Your task to perform on an android device: Open the calendar app, open the side menu, and click the "Day" option Image 0: 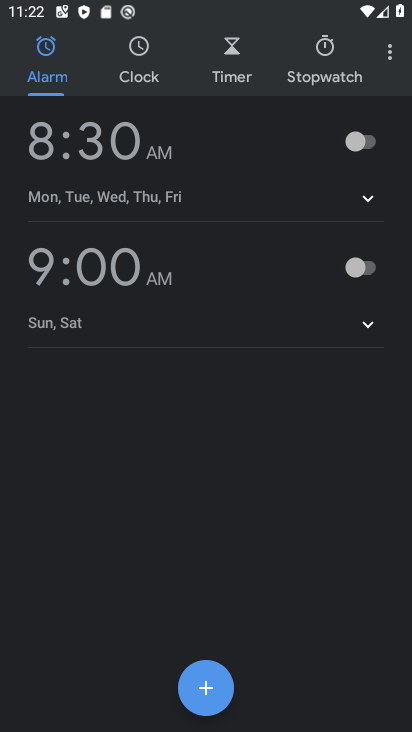
Step 0: press home button
Your task to perform on an android device: Open the calendar app, open the side menu, and click the "Day" option Image 1: 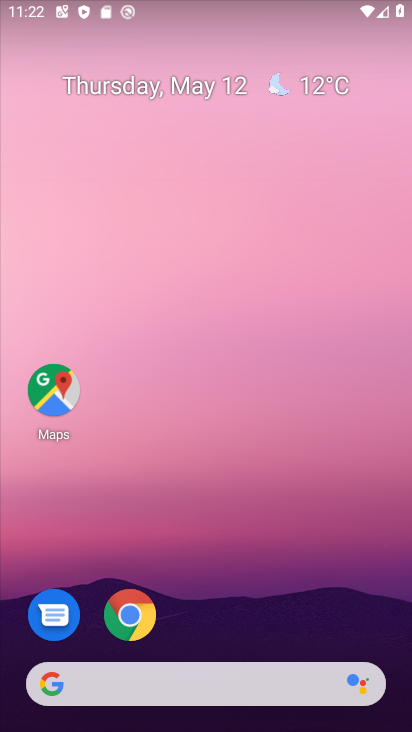
Step 1: drag from (211, 614) to (212, 139)
Your task to perform on an android device: Open the calendar app, open the side menu, and click the "Day" option Image 2: 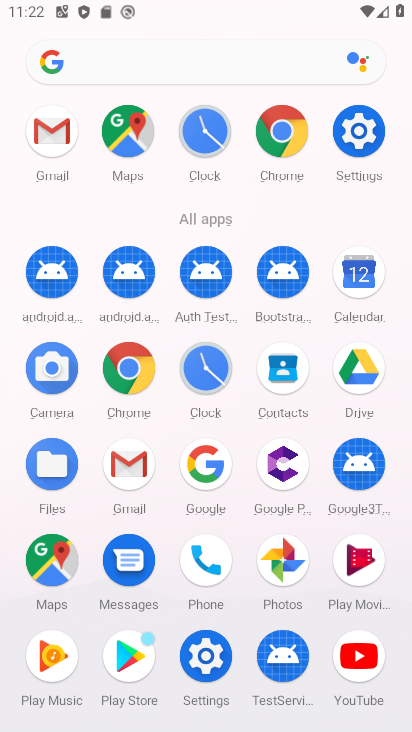
Step 2: click (362, 283)
Your task to perform on an android device: Open the calendar app, open the side menu, and click the "Day" option Image 3: 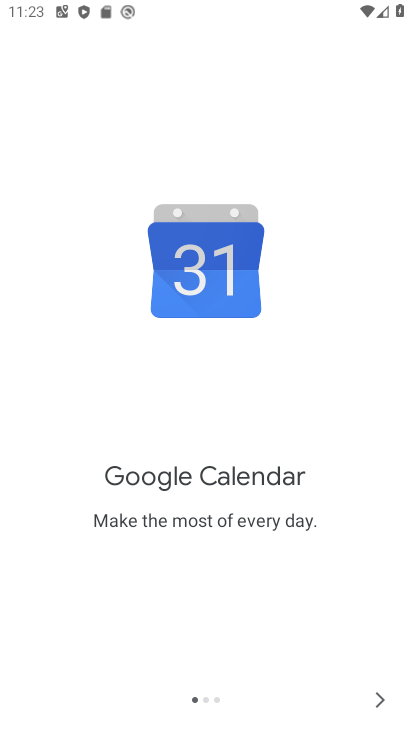
Step 3: click (381, 699)
Your task to perform on an android device: Open the calendar app, open the side menu, and click the "Day" option Image 4: 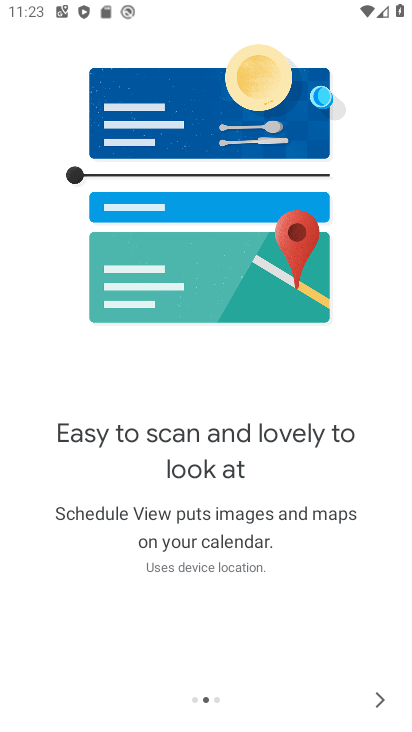
Step 4: click (380, 700)
Your task to perform on an android device: Open the calendar app, open the side menu, and click the "Day" option Image 5: 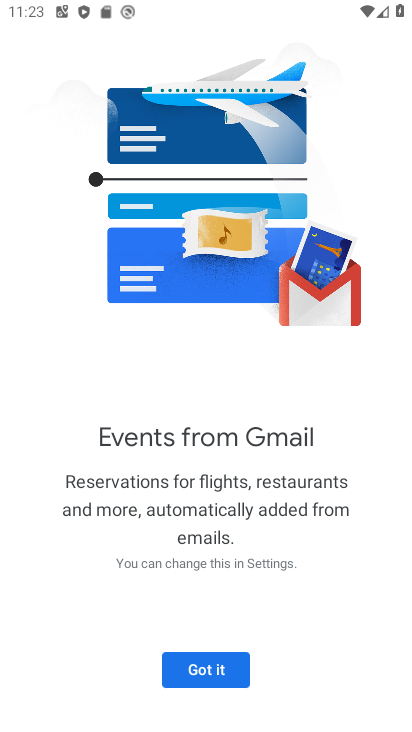
Step 5: click (219, 672)
Your task to perform on an android device: Open the calendar app, open the side menu, and click the "Day" option Image 6: 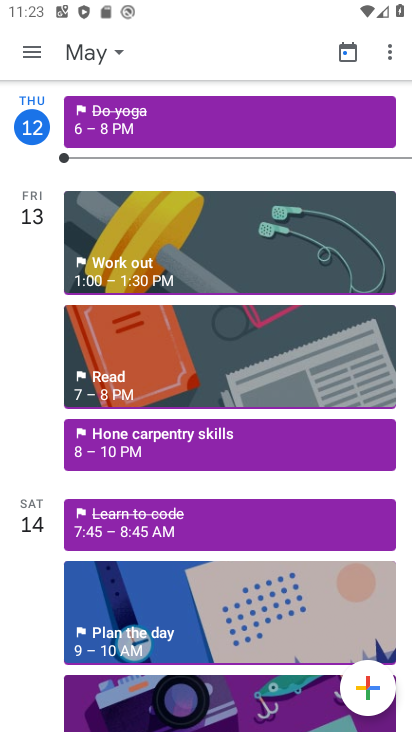
Step 6: click (25, 37)
Your task to perform on an android device: Open the calendar app, open the side menu, and click the "Day" option Image 7: 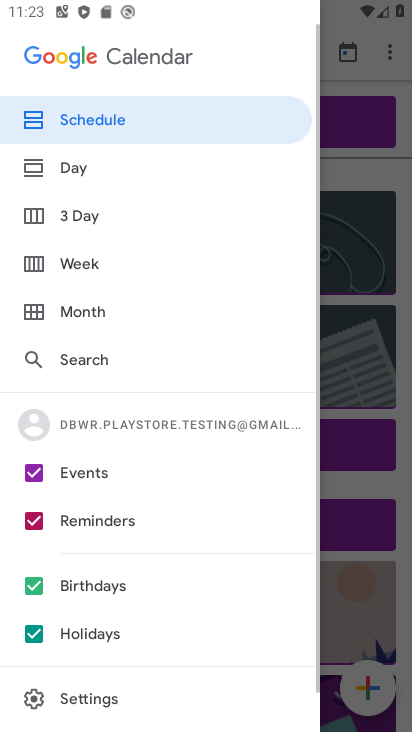
Step 7: click (110, 173)
Your task to perform on an android device: Open the calendar app, open the side menu, and click the "Day" option Image 8: 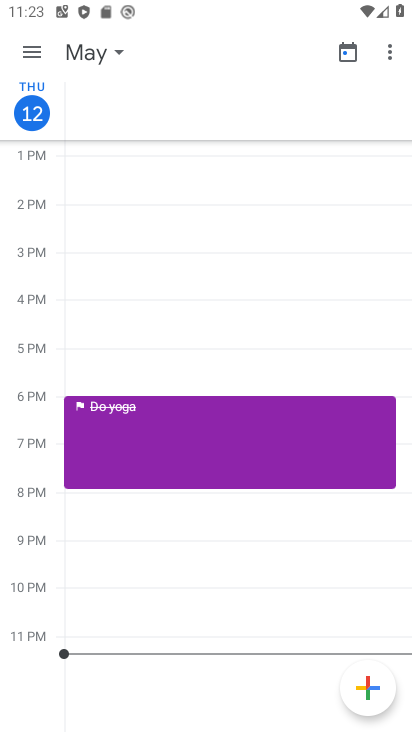
Step 8: click (28, 44)
Your task to perform on an android device: Open the calendar app, open the side menu, and click the "Day" option Image 9: 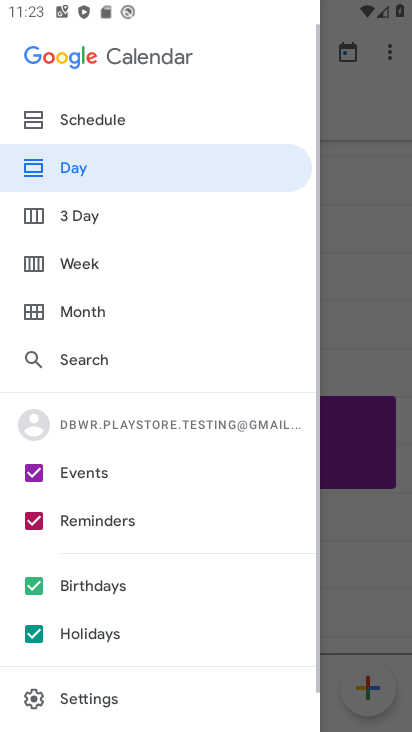
Step 9: click (129, 170)
Your task to perform on an android device: Open the calendar app, open the side menu, and click the "Day" option Image 10: 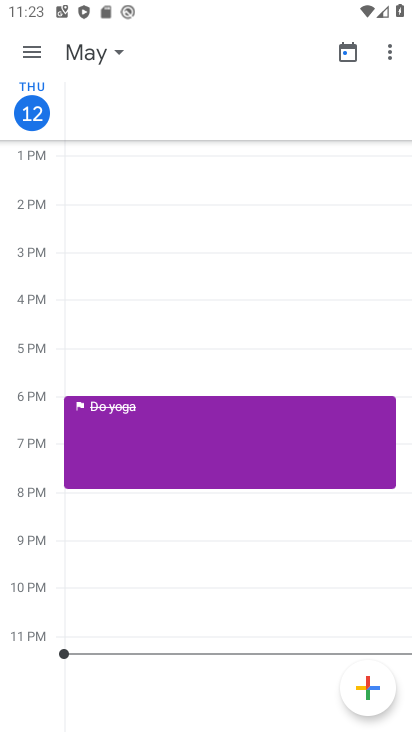
Step 10: task complete